Your task to perform on an android device: check the backup settings in the google photos Image 0: 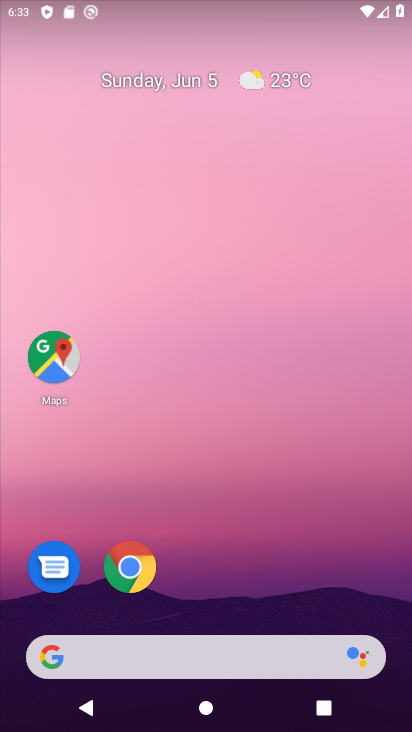
Step 0: drag from (365, 604) to (273, 12)
Your task to perform on an android device: check the backup settings in the google photos Image 1: 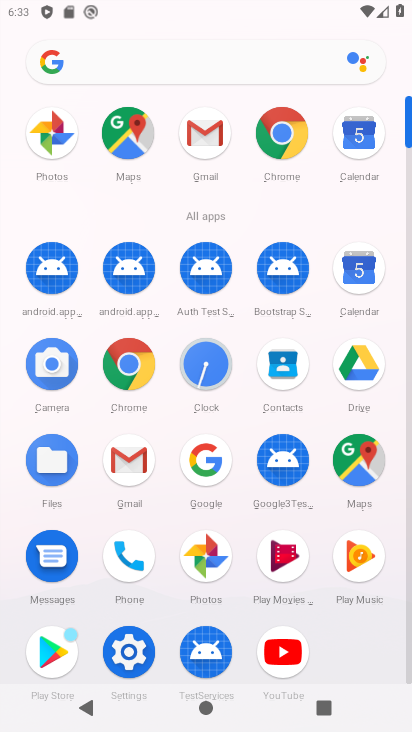
Step 1: click (217, 555)
Your task to perform on an android device: check the backup settings in the google photos Image 2: 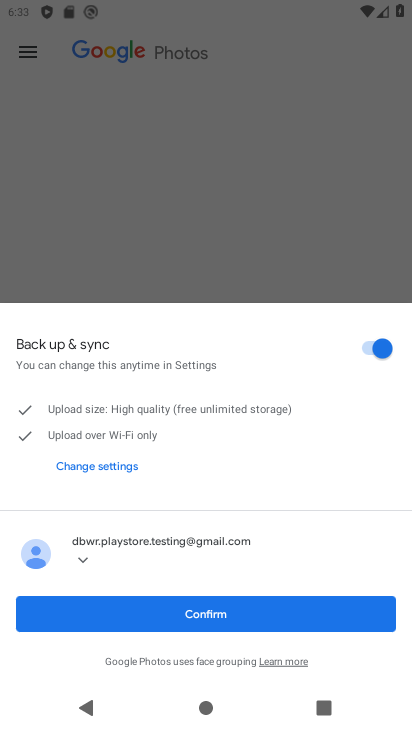
Step 2: click (195, 608)
Your task to perform on an android device: check the backup settings in the google photos Image 3: 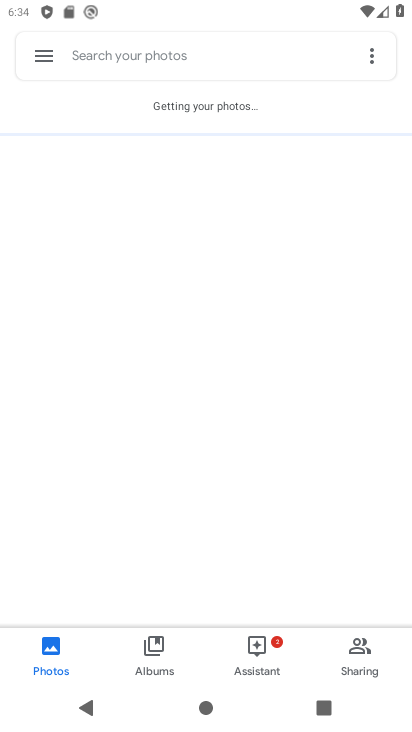
Step 3: click (42, 54)
Your task to perform on an android device: check the backup settings in the google photos Image 4: 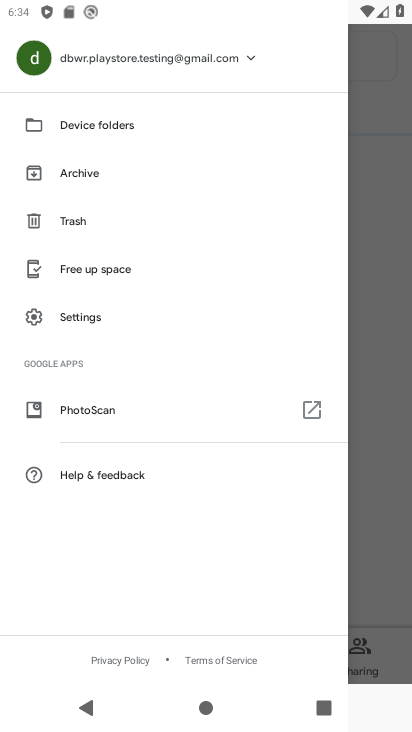
Step 4: click (136, 321)
Your task to perform on an android device: check the backup settings in the google photos Image 5: 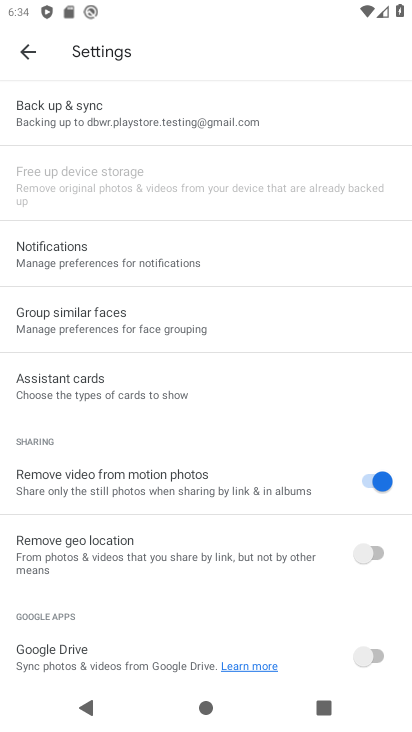
Step 5: click (161, 136)
Your task to perform on an android device: check the backup settings in the google photos Image 6: 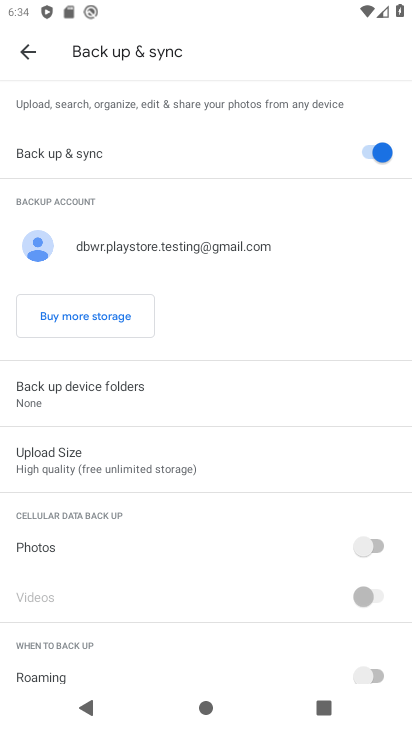
Step 6: task complete